Your task to perform on an android device: Open maps Image 0: 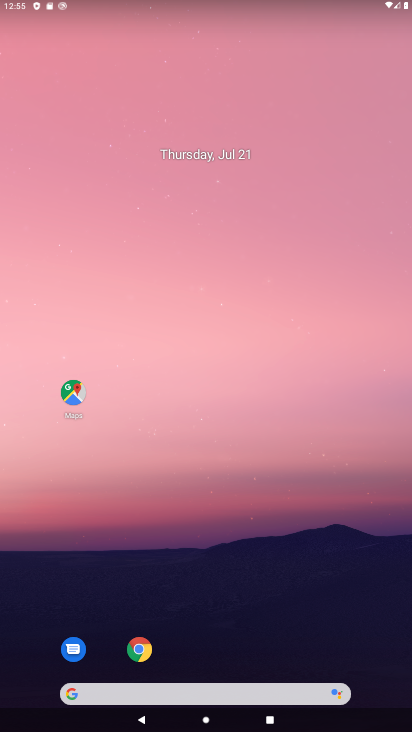
Step 0: click (75, 393)
Your task to perform on an android device: Open maps Image 1: 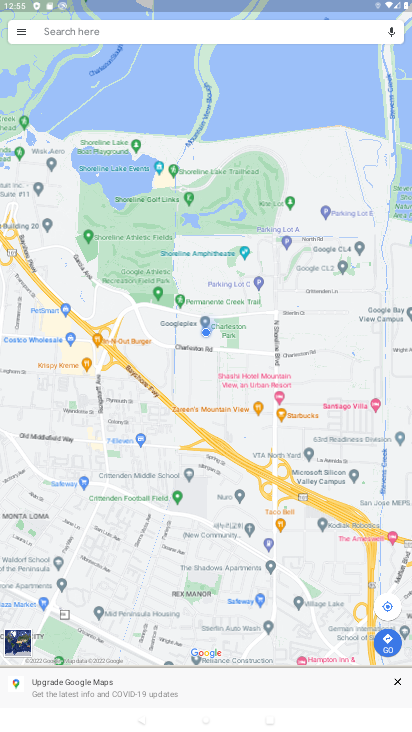
Step 1: task complete